Your task to perform on an android device: turn on wifi Image 0: 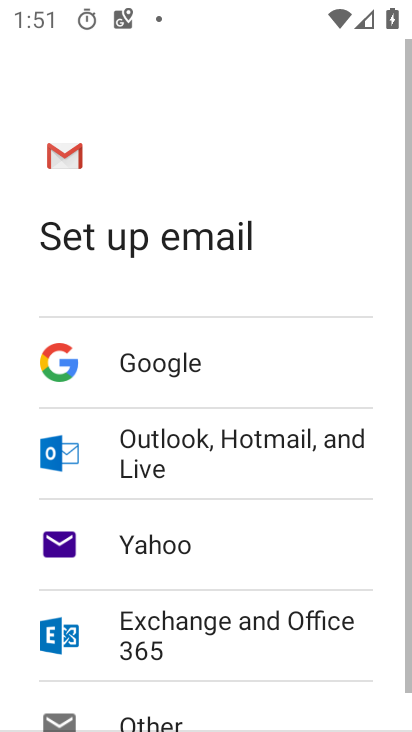
Step 0: press home button
Your task to perform on an android device: turn on wifi Image 1: 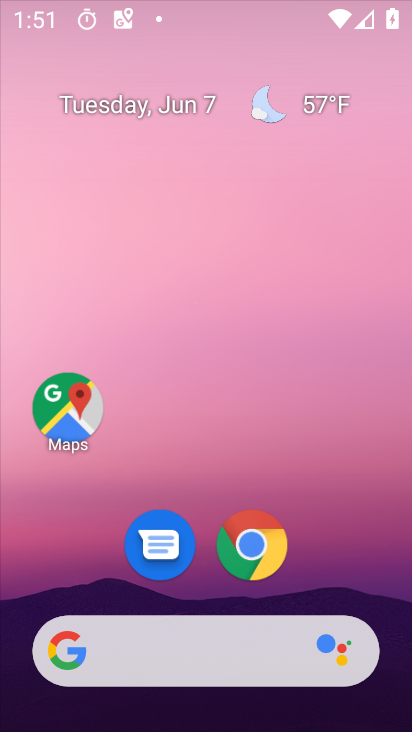
Step 1: drag from (319, 600) to (245, 9)
Your task to perform on an android device: turn on wifi Image 2: 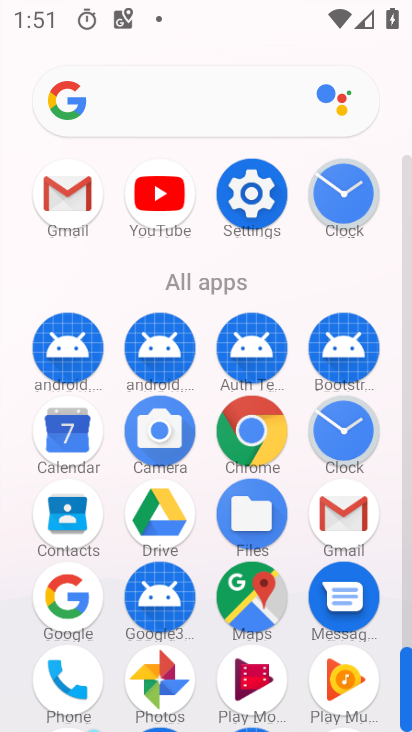
Step 2: click (259, 187)
Your task to perform on an android device: turn on wifi Image 3: 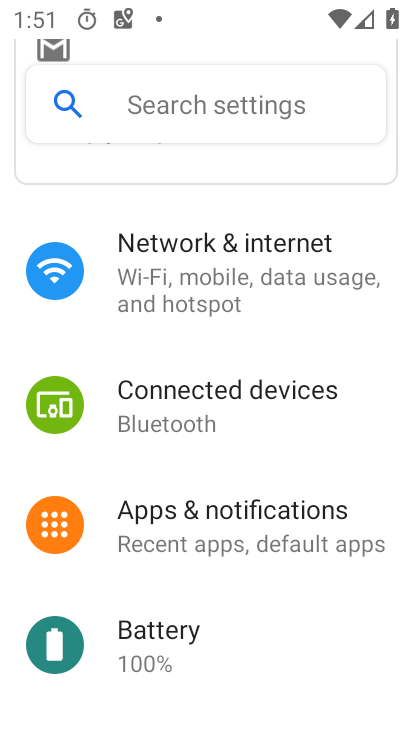
Step 3: click (189, 278)
Your task to perform on an android device: turn on wifi Image 4: 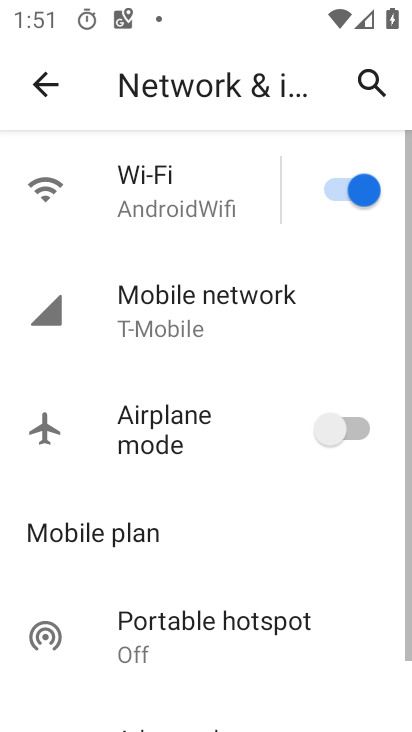
Step 4: task complete